Your task to perform on an android device: change text size in settings app Image 0: 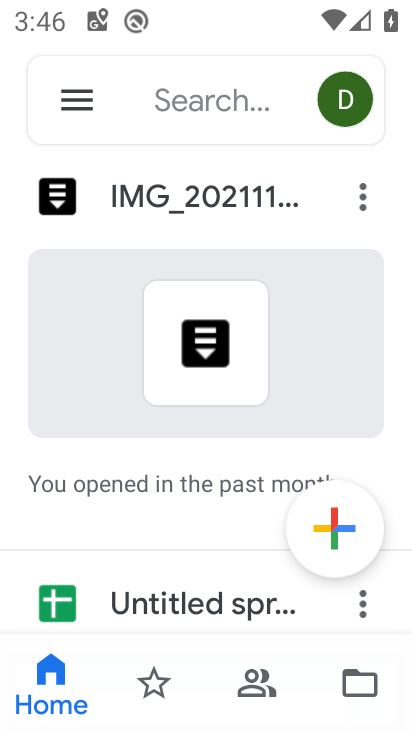
Step 0: press back button
Your task to perform on an android device: change text size in settings app Image 1: 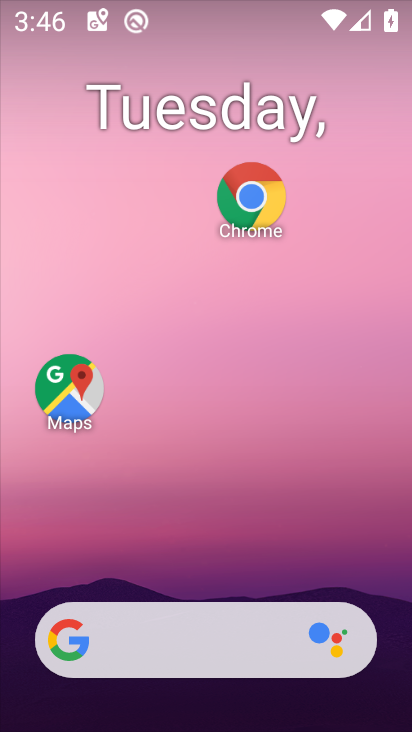
Step 1: drag from (224, 516) to (239, 404)
Your task to perform on an android device: change text size in settings app Image 2: 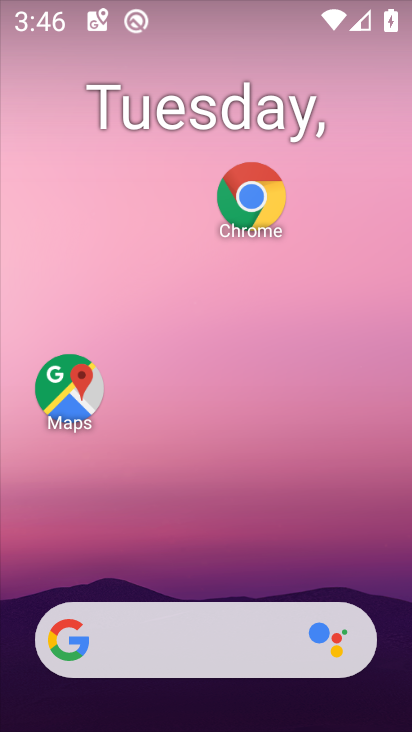
Step 2: drag from (248, 477) to (249, 315)
Your task to perform on an android device: change text size in settings app Image 3: 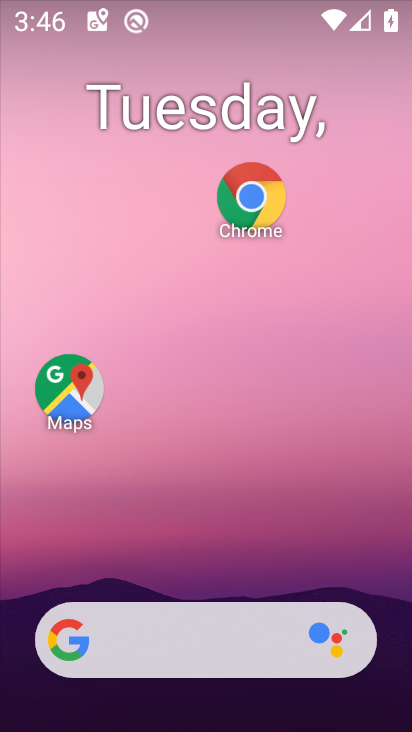
Step 3: drag from (162, 606) to (215, 203)
Your task to perform on an android device: change text size in settings app Image 4: 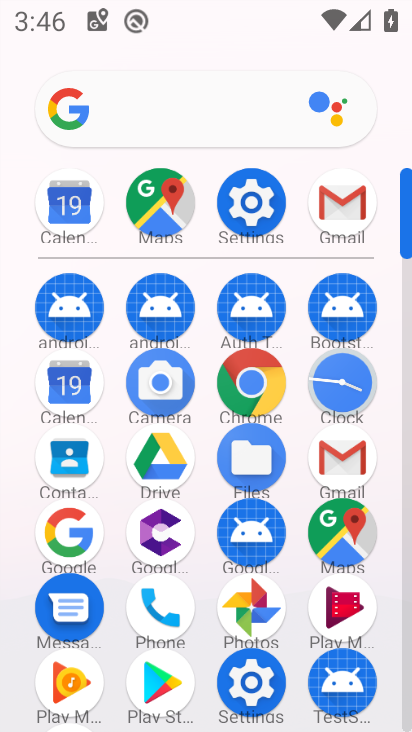
Step 4: click (256, 206)
Your task to perform on an android device: change text size in settings app Image 5: 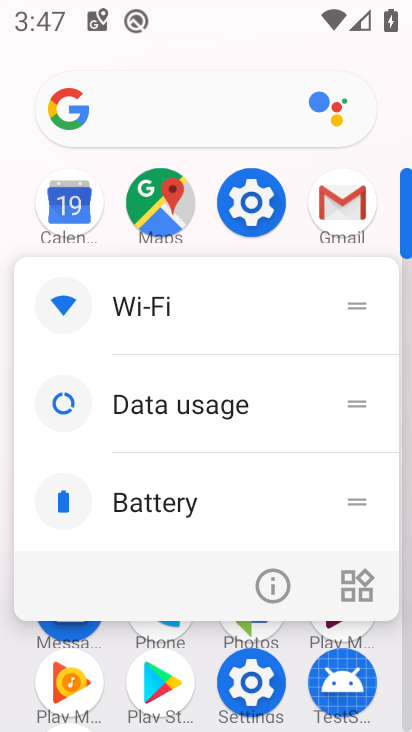
Step 5: click (254, 199)
Your task to perform on an android device: change text size in settings app Image 6: 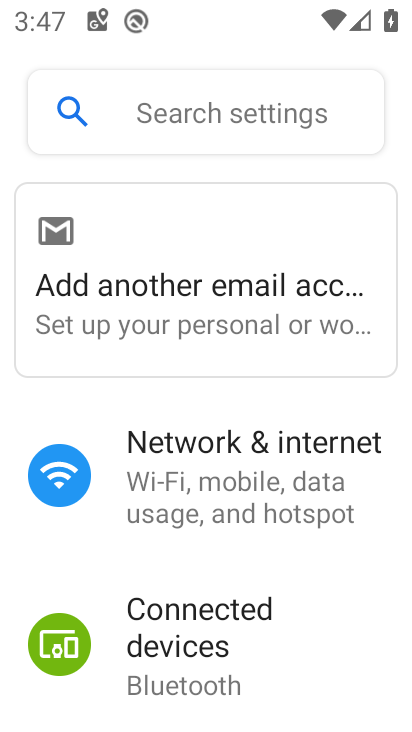
Step 6: drag from (225, 624) to (264, 361)
Your task to perform on an android device: change text size in settings app Image 7: 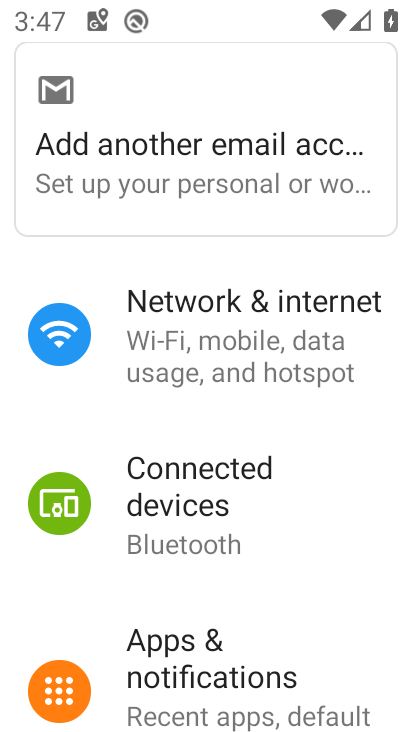
Step 7: drag from (246, 679) to (284, 396)
Your task to perform on an android device: change text size in settings app Image 8: 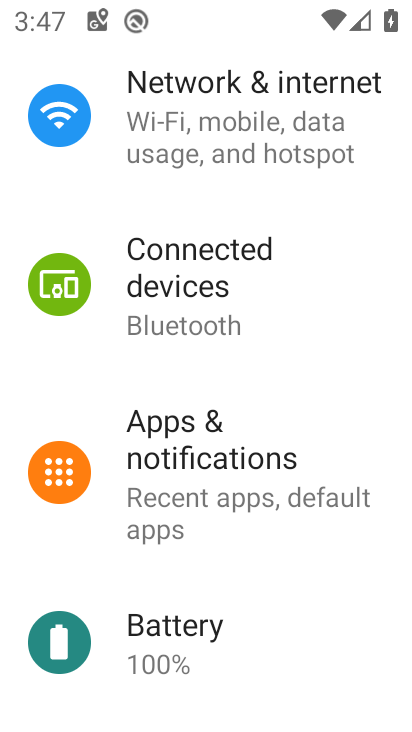
Step 8: drag from (228, 691) to (291, 435)
Your task to perform on an android device: change text size in settings app Image 9: 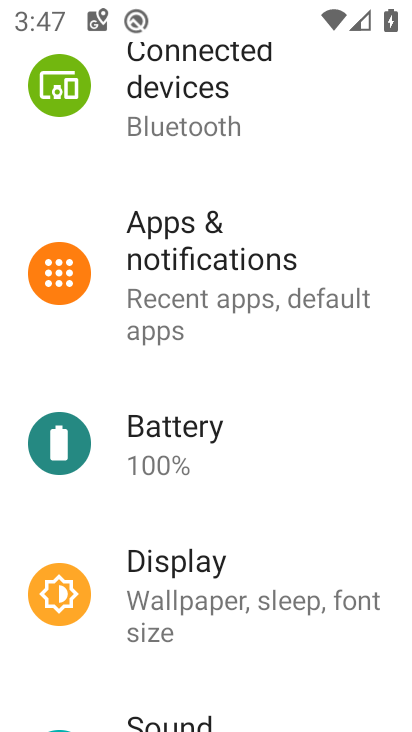
Step 9: drag from (211, 713) to (260, 503)
Your task to perform on an android device: change text size in settings app Image 10: 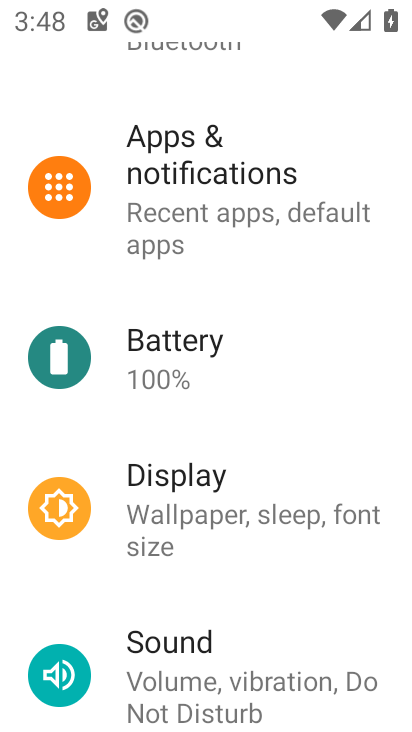
Step 10: drag from (196, 596) to (289, 262)
Your task to perform on an android device: change text size in settings app Image 11: 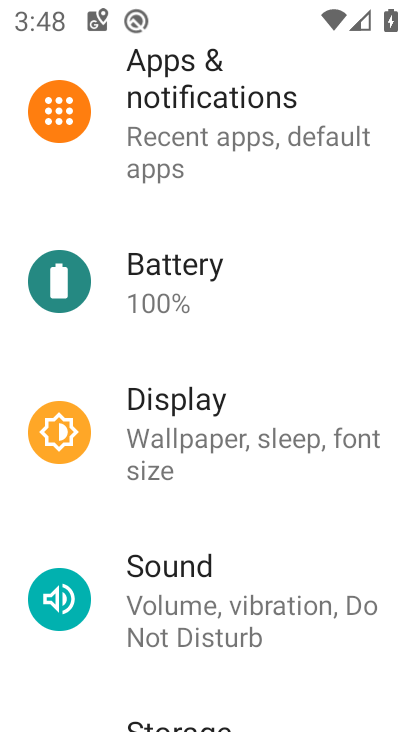
Step 11: drag from (238, 600) to (307, 242)
Your task to perform on an android device: change text size in settings app Image 12: 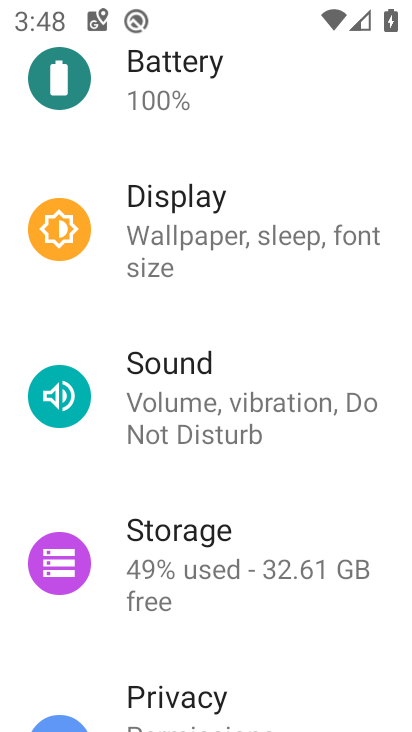
Step 12: drag from (217, 687) to (268, 237)
Your task to perform on an android device: change text size in settings app Image 13: 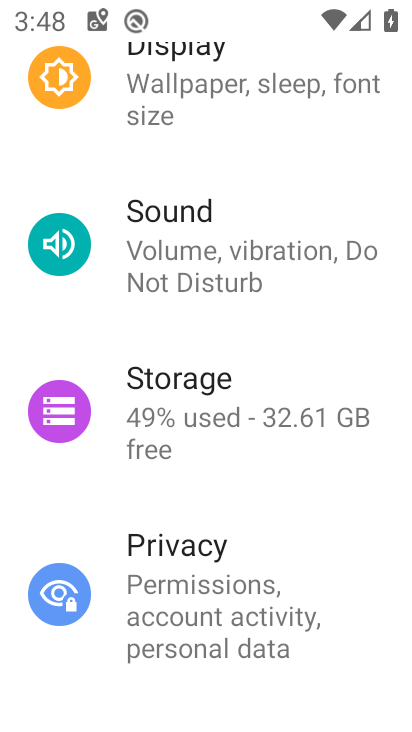
Step 13: drag from (178, 627) to (246, 235)
Your task to perform on an android device: change text size in settings app Image 14: 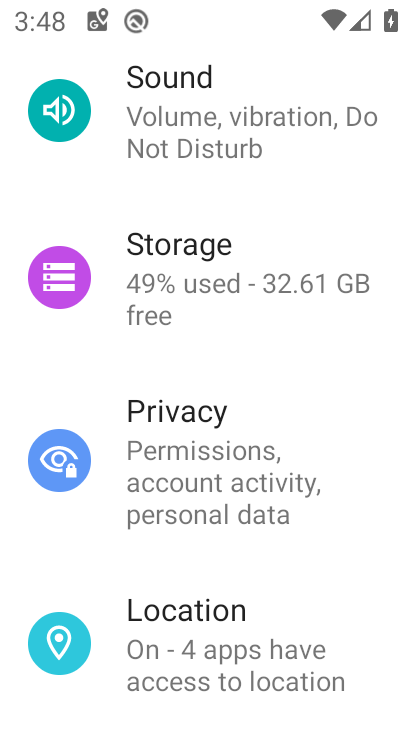
Step 14: drag from (167, 675) to (218, 343)
Your task to perform on an android device: change text size in settings app Image 15: 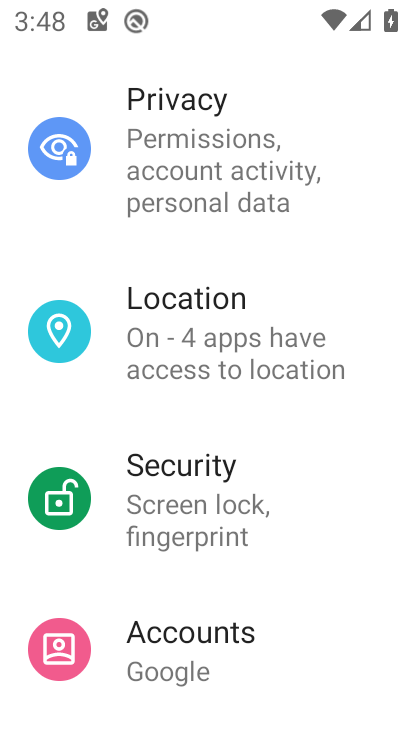
Step 15: drag from (125, 680) to (220, 345)
Your task to perform on an android device: change text size in settings app Image 16: 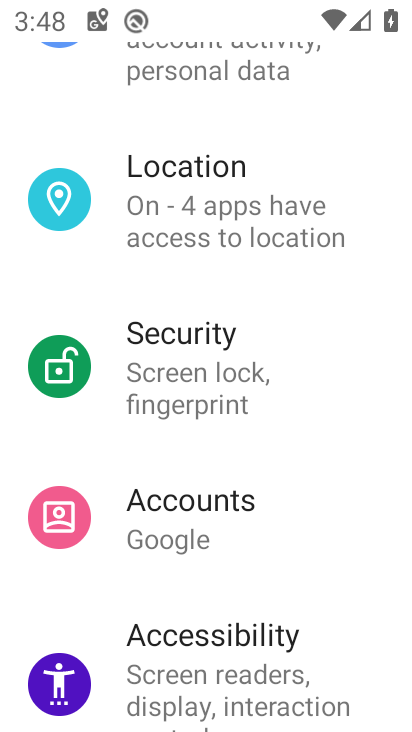
Step 16: click (205, 688)
Your task to perform on an android device: change text size in settings app Image 17: 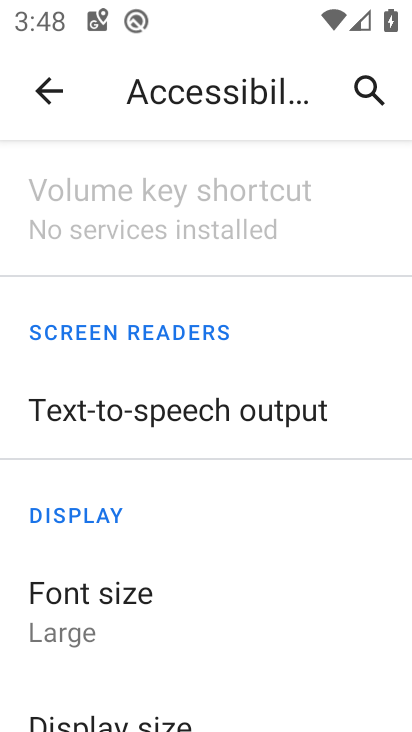
Step 17: click (95, 611)
Your task to perform on an android device: change text size in settings app Image 18: 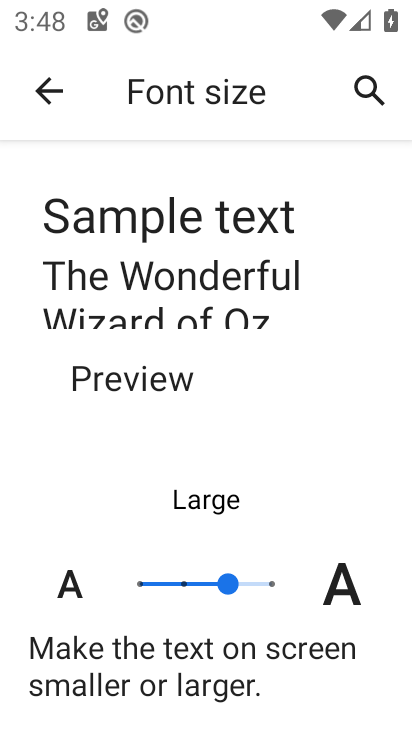
Step 18: click (183, 580)
Your task to perform on an android device: change text size in settings app Image 19: 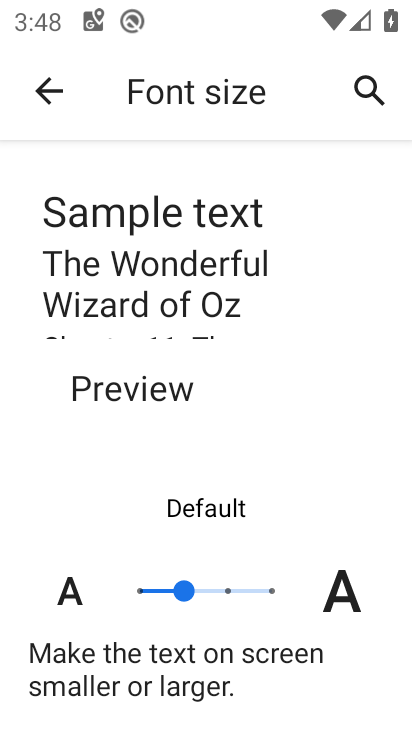
Step 19: task complete